Your task to perform on an android device: find photos in the google photos app Image 0: 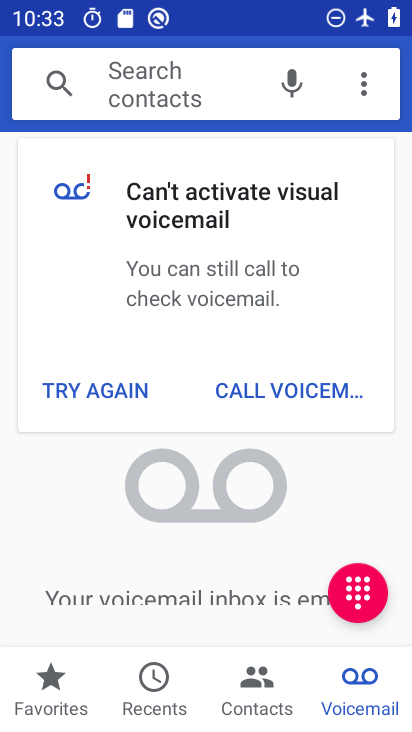
Step 0: press home button
Your task to perform on an android device: find photos in the google photos app Image 1: 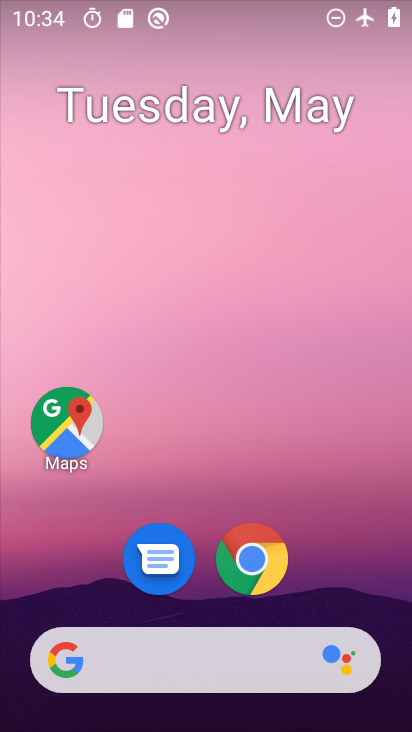
Step 1: drag from (399, 600) to (315, 108)
Your task to perform on an android device: find photos in the google photos app Image 2: 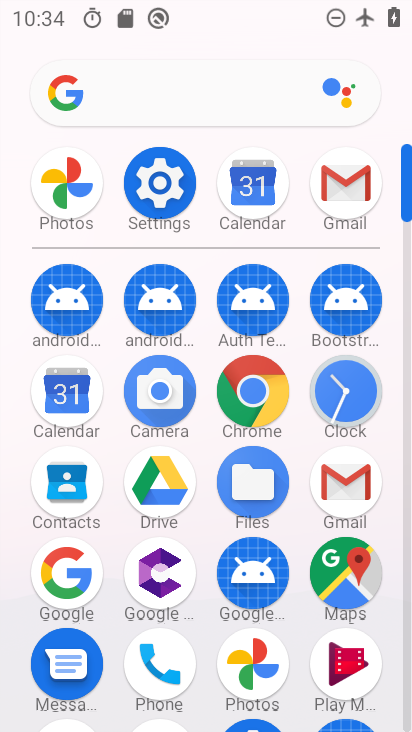
Step 2: click (256, 655)
Your task to perform on an android device: find photos in the google photos app Image 3: 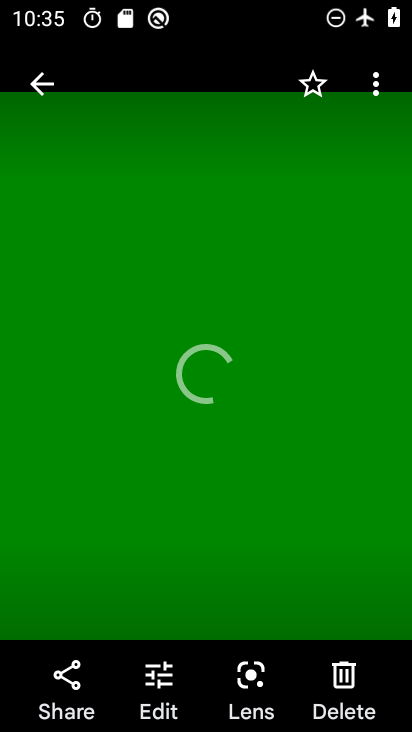
Step 3: task complete